Your task to perform on an android device: Open Android settings Image 0: 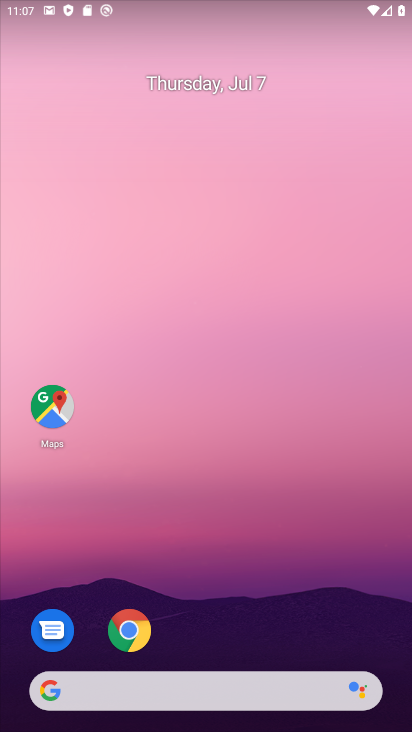
Step 0: drag from (184, 626) to (180, 185)
Your task to perform on an android device: Open Android settings Image 1: 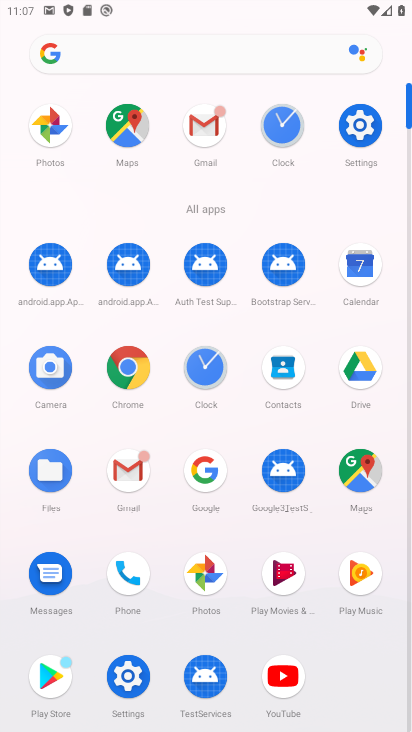
Step 1: click (355, 137)
Your task to perform on an android device: Open Android settings Image 2: 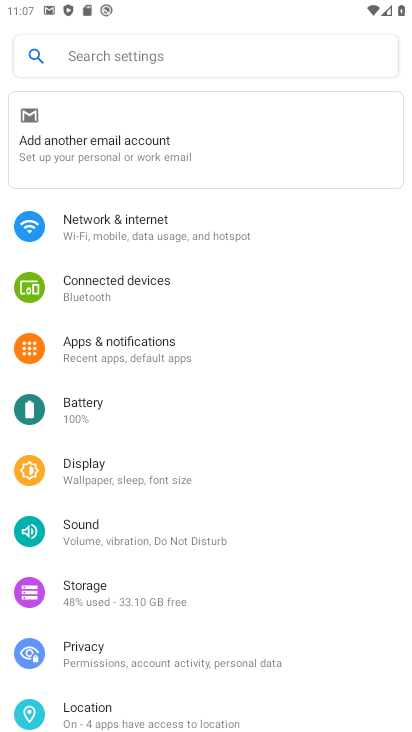
Step 2: task complete